Your task to perform on an android device: Go to Google Image 0: 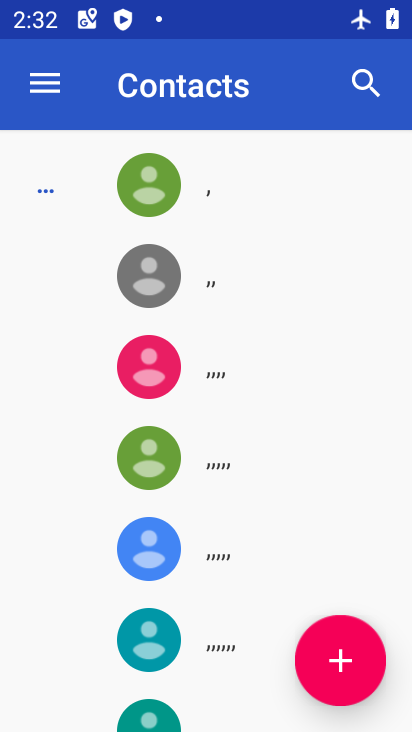
Step 0: press home button
Your task to perform on an android device: Go to Google Image 1: 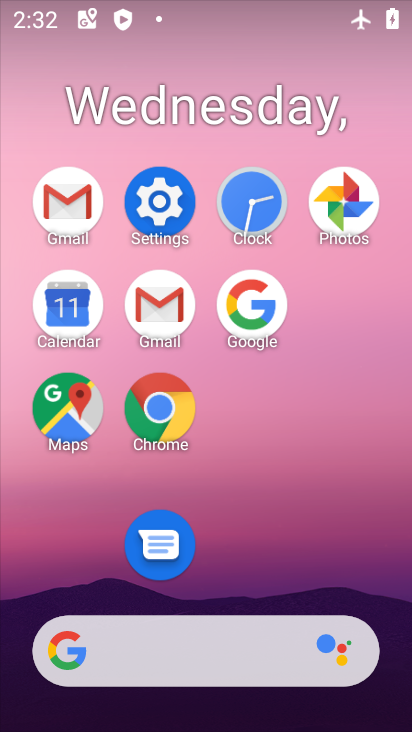
Step 1: click (254, 298)
Your task to perform on an android device: Go to Google Image 2: 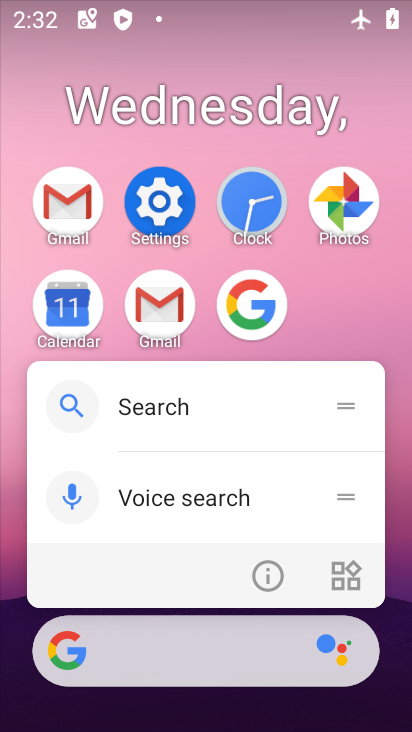
Step 2: click (253, 289)
Your task to perform on an android device: Go to Google Image 3: 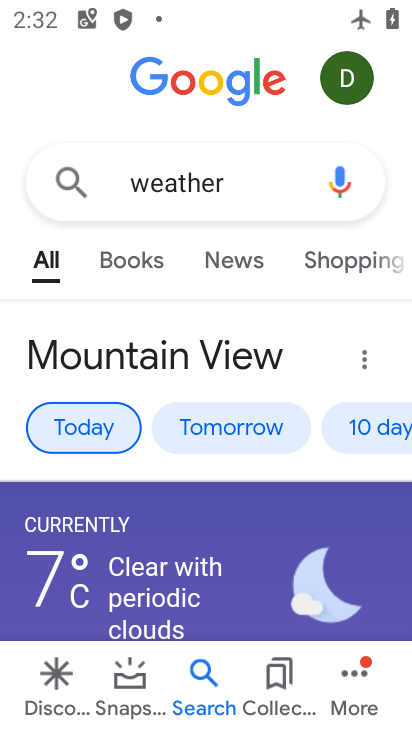
Step 3: task complete